Your task to perform on an android device: Open settings on Google Maps Image 0: 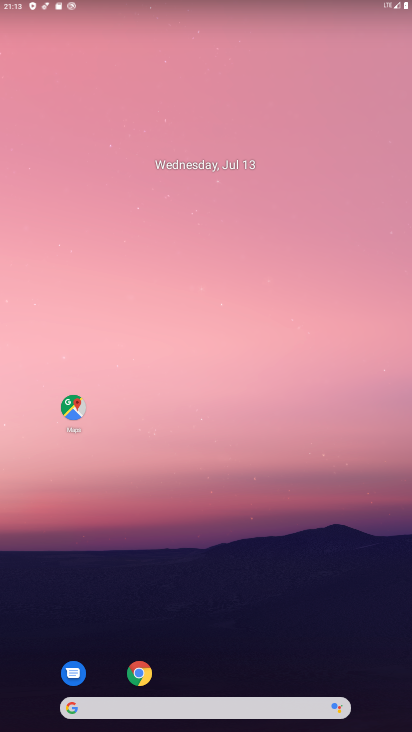
Step 0: drag from (197, 669) to (214, 351)
Your task to perform on an android device: Open settings on Google Maps Image 1: 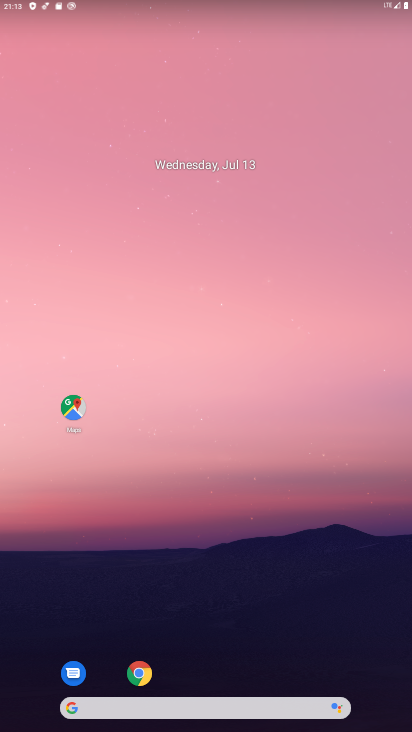
Step 1: drag from (209, 636) to (209, 294)
Your task to perform on an android device: Open settings on Google Maps Image 2: 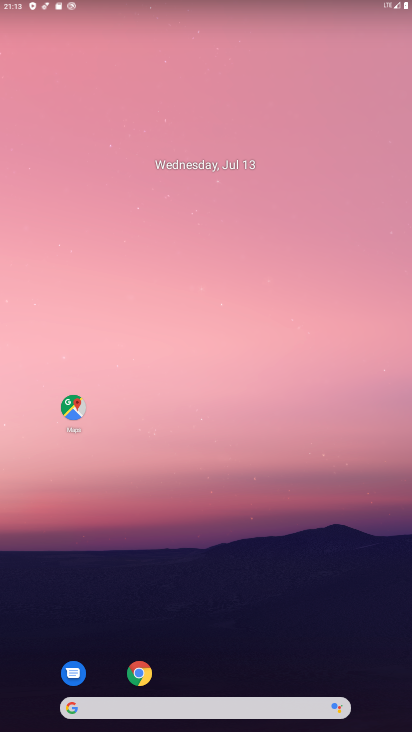
Step 2: drag from (189, 619) to (191, 270)
Your task to perform on an android device: Open settings on Google Maps Image 3: 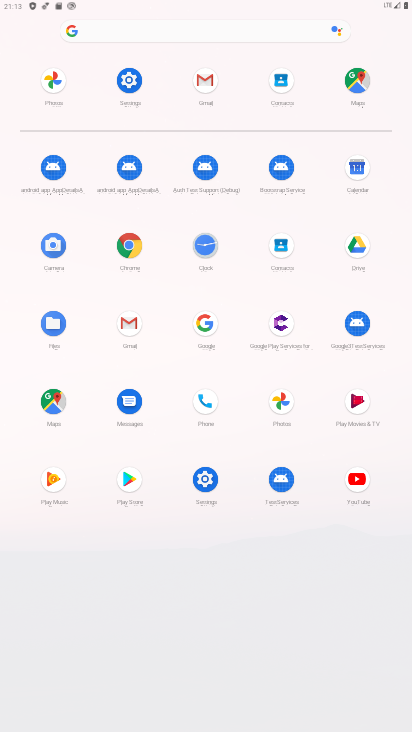
Step 3: click (65, 398)
Your task to perform on an android device: Open settings on Google Maps Image 4: 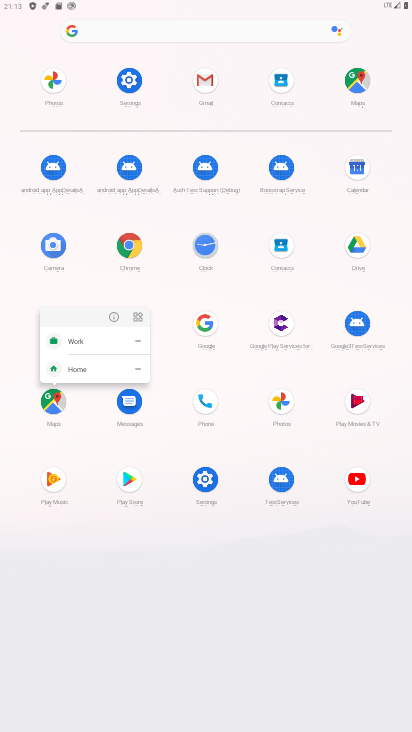
Step 4: click (113, 321)
Your task to perform on an android device: Open settings on Google Maps Image 5: 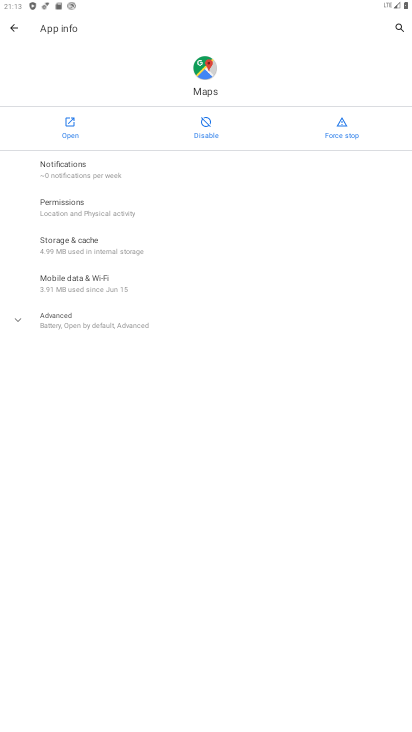
Step 5: click (74, 126)
Your task to perform on an android device: Open settings on Google Maps Image 6: 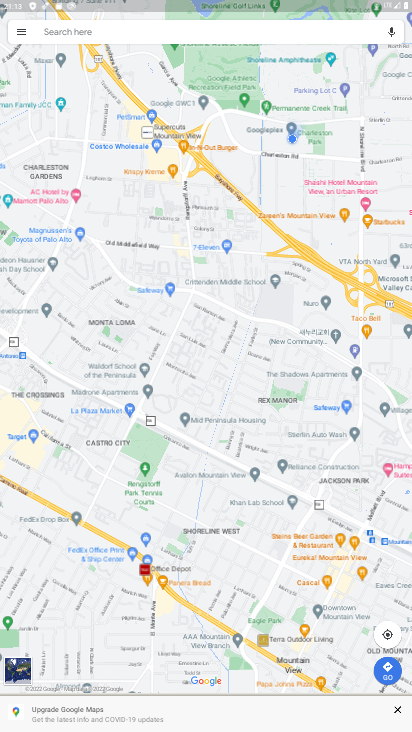
Step 6: click (24, 33)
Your task to perform on an android device: Open settings on Google Maps Image 7: 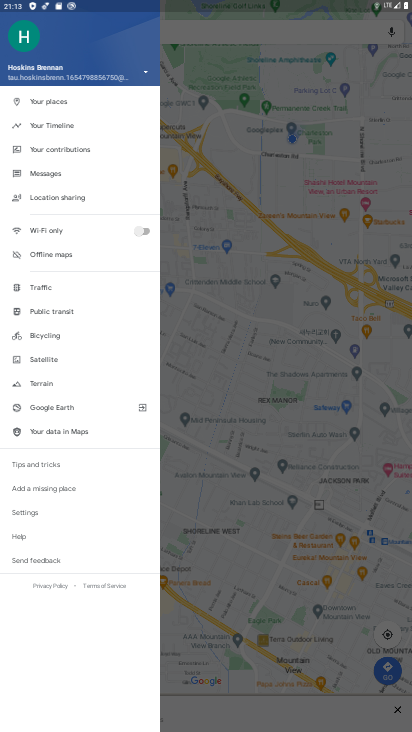
Step 7: click (41, 509)
Your task to perform on an android device: Open settings on Google Maps Image 8: 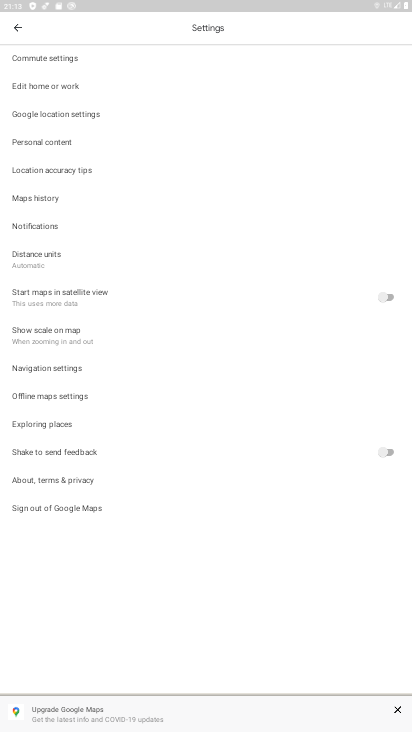
Step 8: task complete